Your task to perform on an android device: Open the calendar app, open the side menu, and click the "Day" option Image 0: 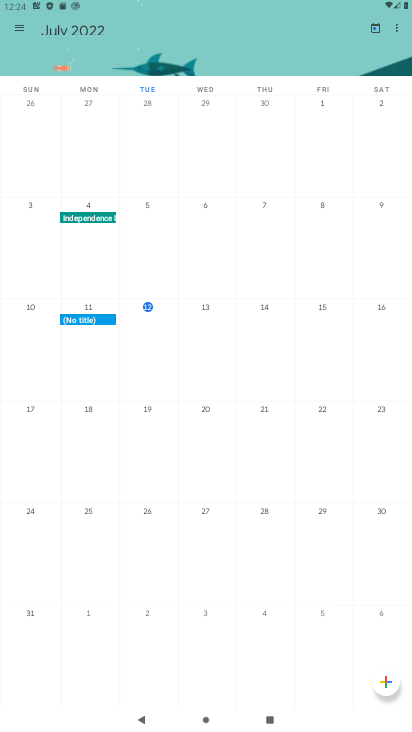
Step 0: press home button
Your task to perform on an android device: Open the calendar app, open the side menu, and click the "Day" option Image 1: 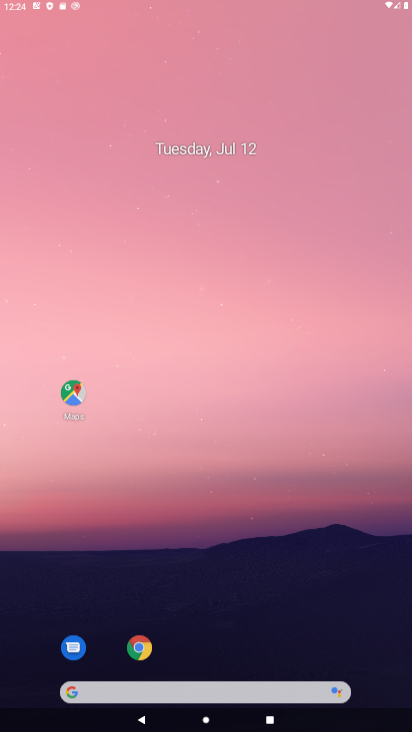
Step 1: drag from (392, 671) to (285, 37)
Your task to perform on an android device: Open the calendar app, open the side menu, and click the "Day" option Image 2: 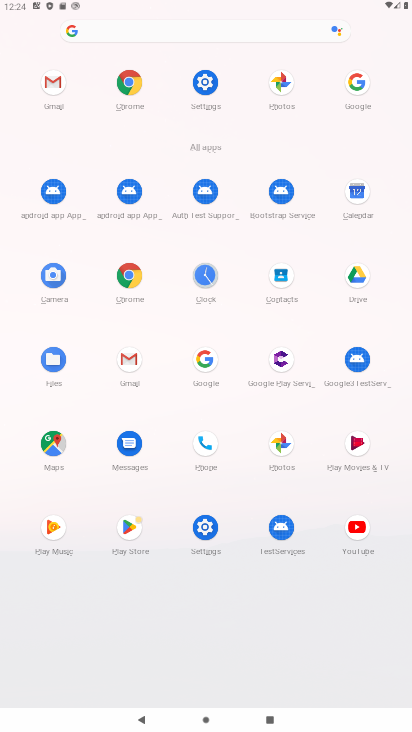
Step 2: click (350, 201)
Your task to perform on an android device: Open the calendar app, open the side menu, and click the "Day" option Image 3: 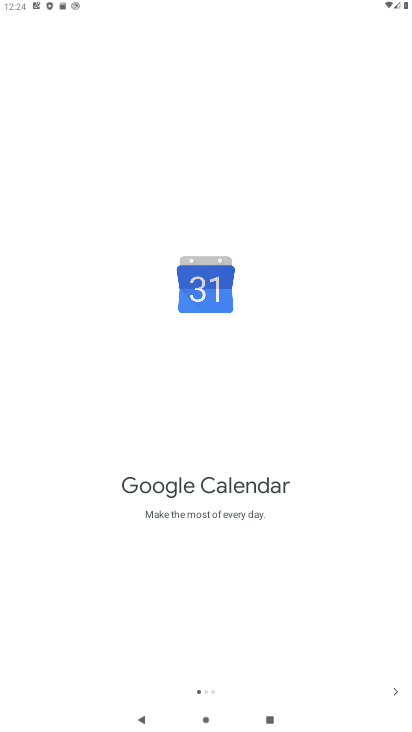
Step 3: click (389, 680)
Your task to perform on an android device: Open the calendar app, open the side menu, and click the "Day" option Image 4: 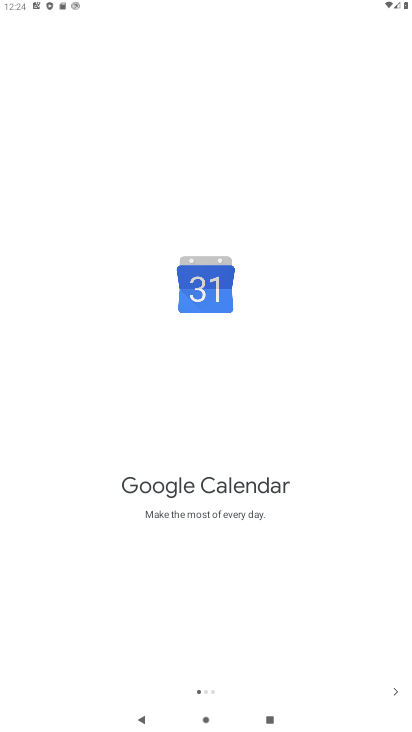
Step 4: click (401, 691)
Your task to perform on an android device: Open the calendar app, open the side menu, and click the "Day" option Image 5: 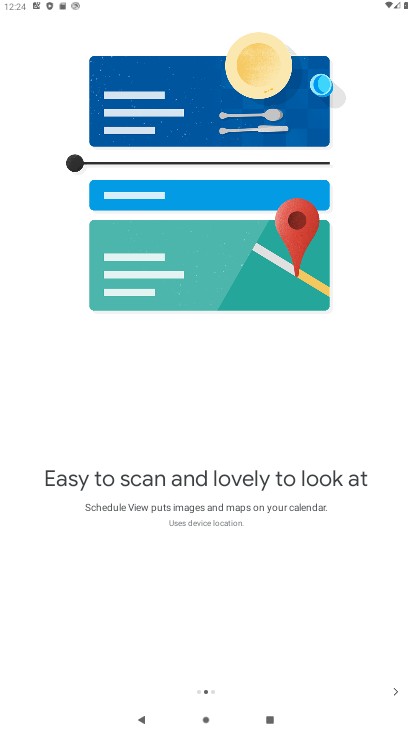
Step 5: click (396, 690)
Your task to perform on an android device: Open the calendar app, open the side menu, and click the "Day" option Image 6: 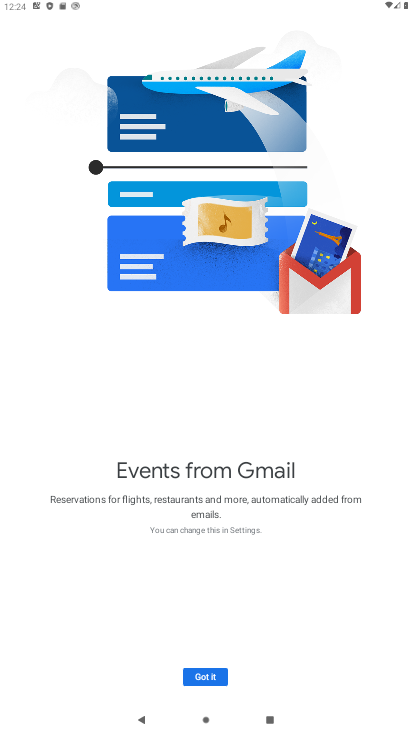
Step 6: click (203, 681)
Your task to perform on an android device: Open the calendar app, open the side menu, and click the "Day" option Image 7: 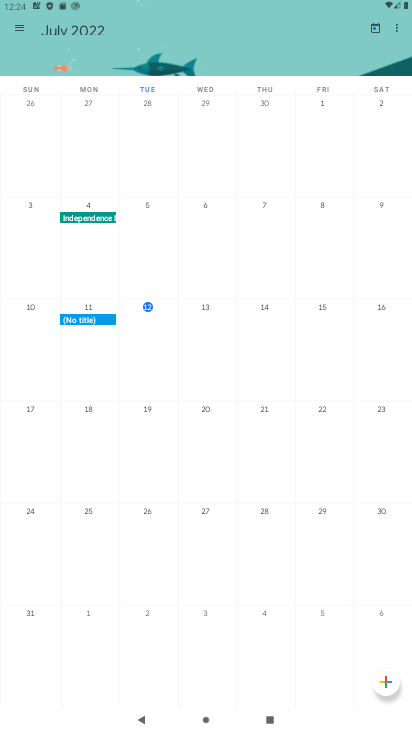
Step 7: click (19, 23)
Your task to perform on an android device: Open the calendar app, open the side menu, and click the "Day" option Image 8: 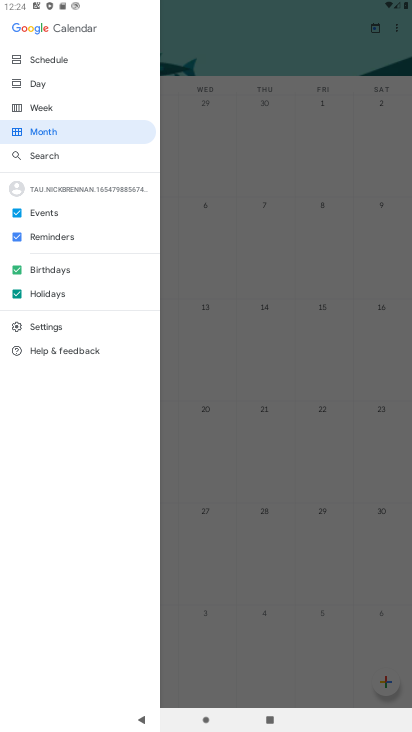
Step 8: click (41, 85)
Your task to perform on an android device: Open the calendar app, open the side menu, and click the "Day" option Image 9: 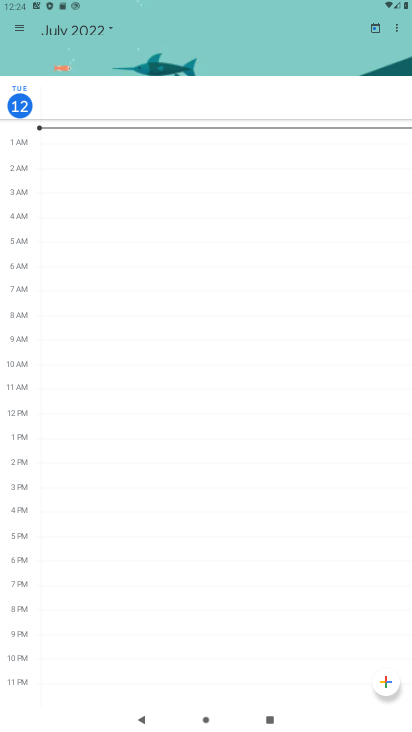
Step 9: task complete